Your task to perform on an android device: Open the calendar app, open the side menu, and click the "Day" option Image 0: 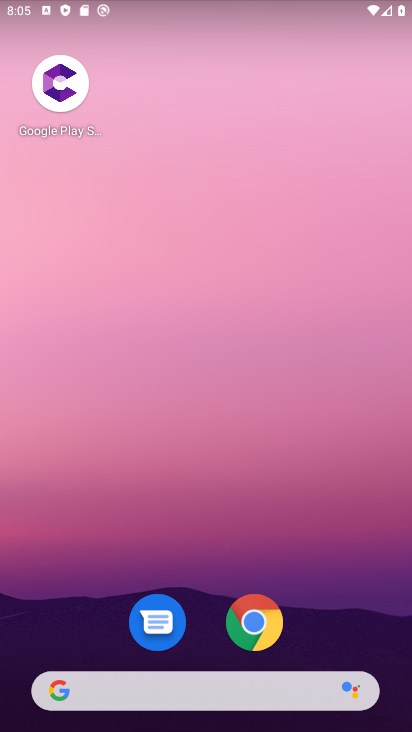
Step 0: drag from (143, 235) to (361, 18)
Your task to perform on an android device: Open the calendar app, open the side menu, and click the "Day" option Image 1: 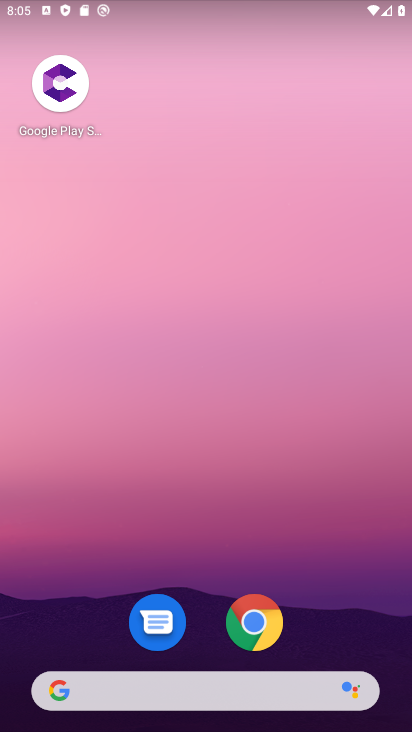
Step 1: drag from (295, 725) to (304, 14)
Your task to perform on an android device: Open the calendar app, open the side menu, and click the "Day" option Image 2: 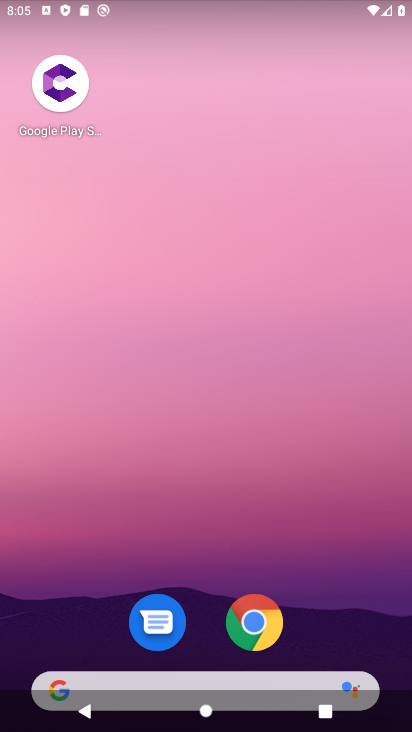
Step 2: drag from (277, 704) to (401, 0)
Your task to perform on an android device: Open the calendar app, open the side menu, and click the "Day" option Image 3: 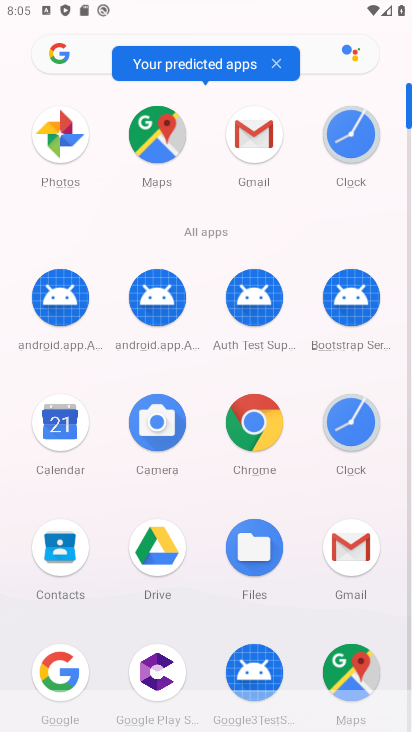
Step 3: click (66, 427)
Your task to perform on an android device: Open the calendar app, open the side menu, and click the "Day" option Image 4: 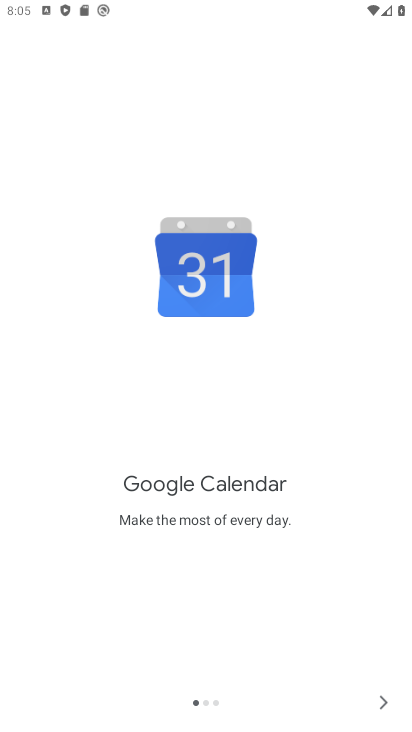
Step 4: click (376, 700)
Your task to perform on an android device: Open the calendar app, open the side menu, and click the "Day" option Image 5: 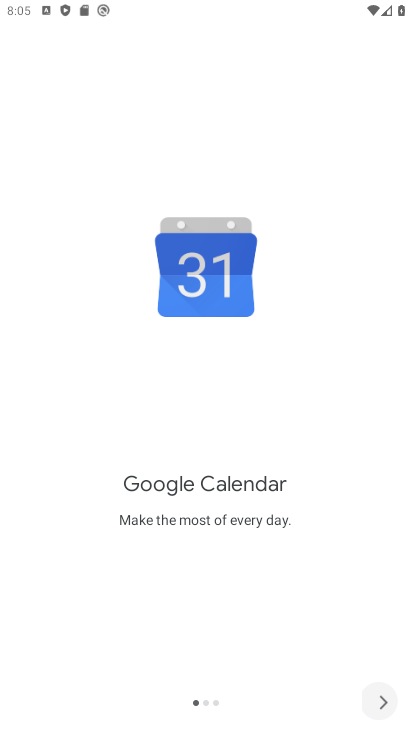
Step 5: click (376, 700)
Your task to perform on an android device: Open the calendar app, open the side menu, and click the "Day" option Image 6: 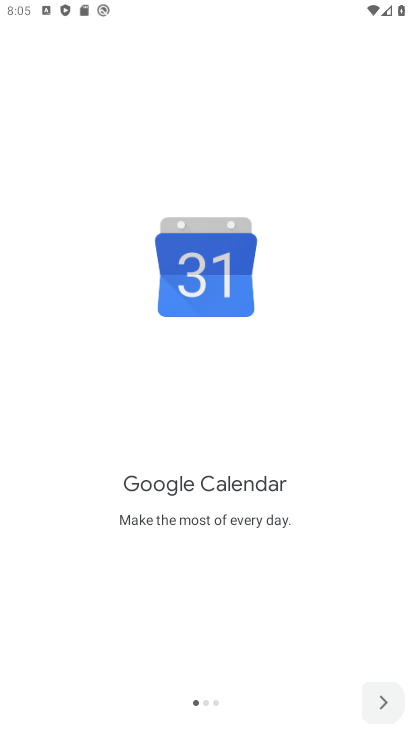
Step 6: click (376, 700)
Your task to perform on an android device: Open the calendar app, open the side menu, and click the "Day" option Image 7: 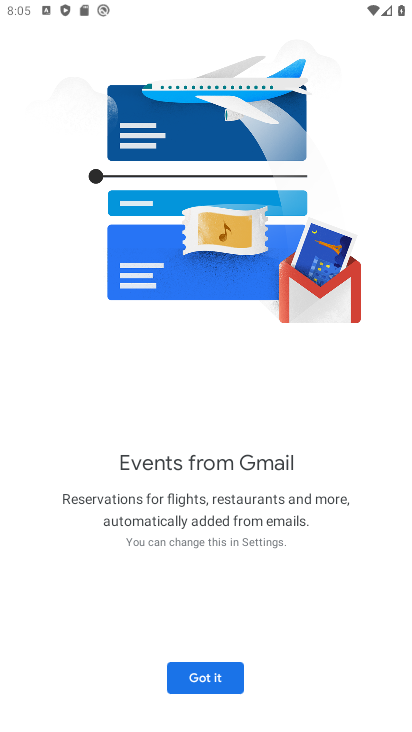
Step 7: click (189, 674)
Your task to perform on an android device: Open the calendar app, open the side menu, and click the "Day" option Image 8: 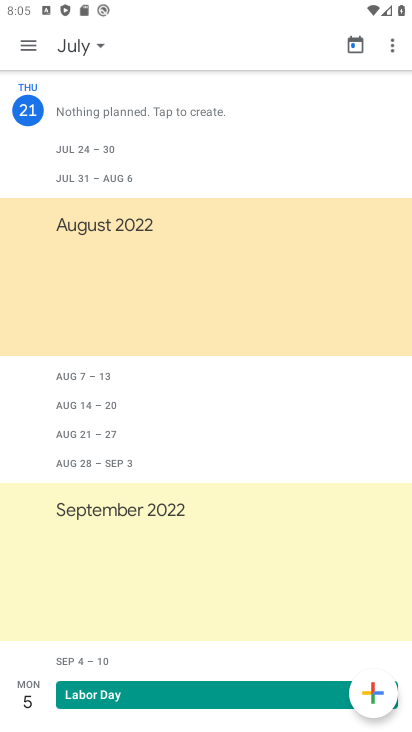
Step 8: click (23, 45)
Your task to perform on an android device: Open the calendar app, open the side menu, and click the "Day" option Image 9: 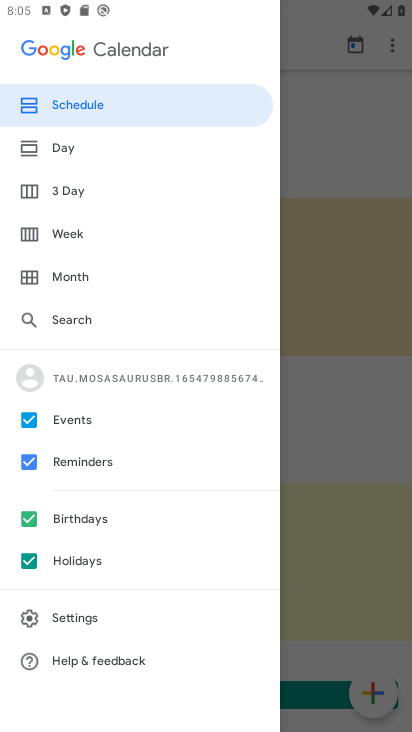
Step 9: click (62, 152)
Your task to perform on an android device: Open the calendar app, open the side menu, and click the "Day" option Image 10: 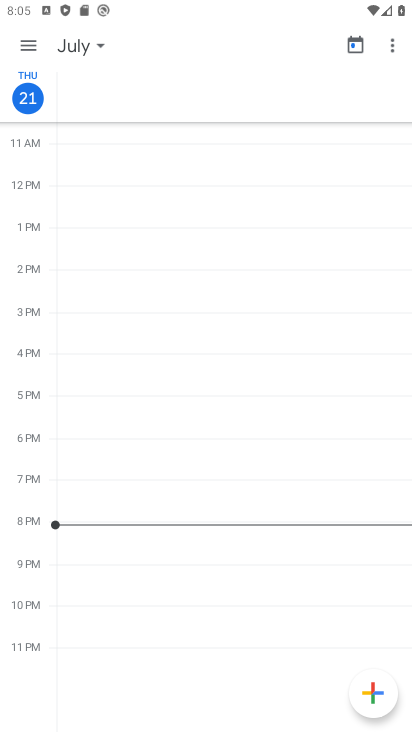
Step 10: task complete